Your task to perform on an android device: turn on airplane mode Image 0: 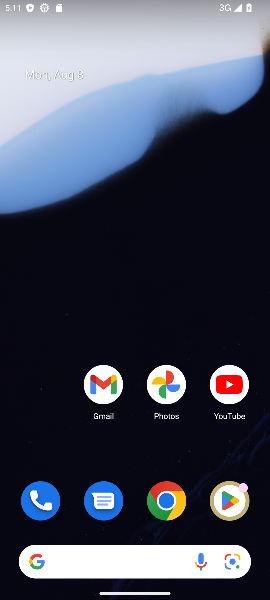
Step 0: drag from (22, 585) to (268, 159)
Your task to perform on an android device: turn on airplane mode Image 1: 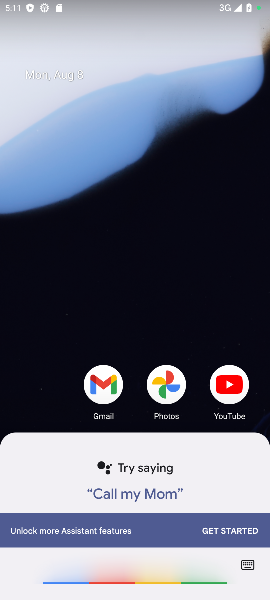
Step 1: drag from (130, 112) to (138, 79)
Your task to perform on an android device: turn on airplane mode Image 2: 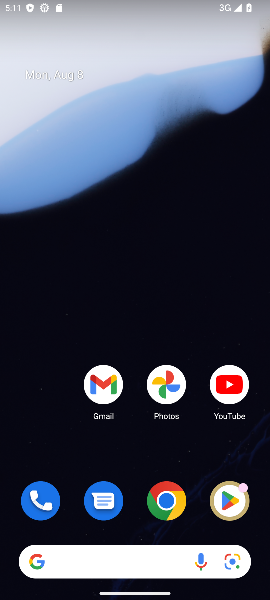
Step 2: click (62, 441)
Your task to perform on an android device: turn on airplane mode Image 3: 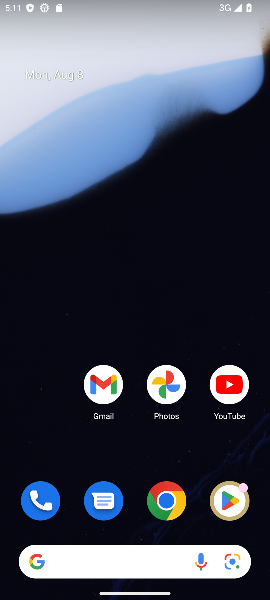
Step 3: task complete